Your task to perform on an android device: open app "Fetch Rewards" (install if not already installed) and enter user name: "Westwood@yahoo.com" and password: "qualifying" Image 0: 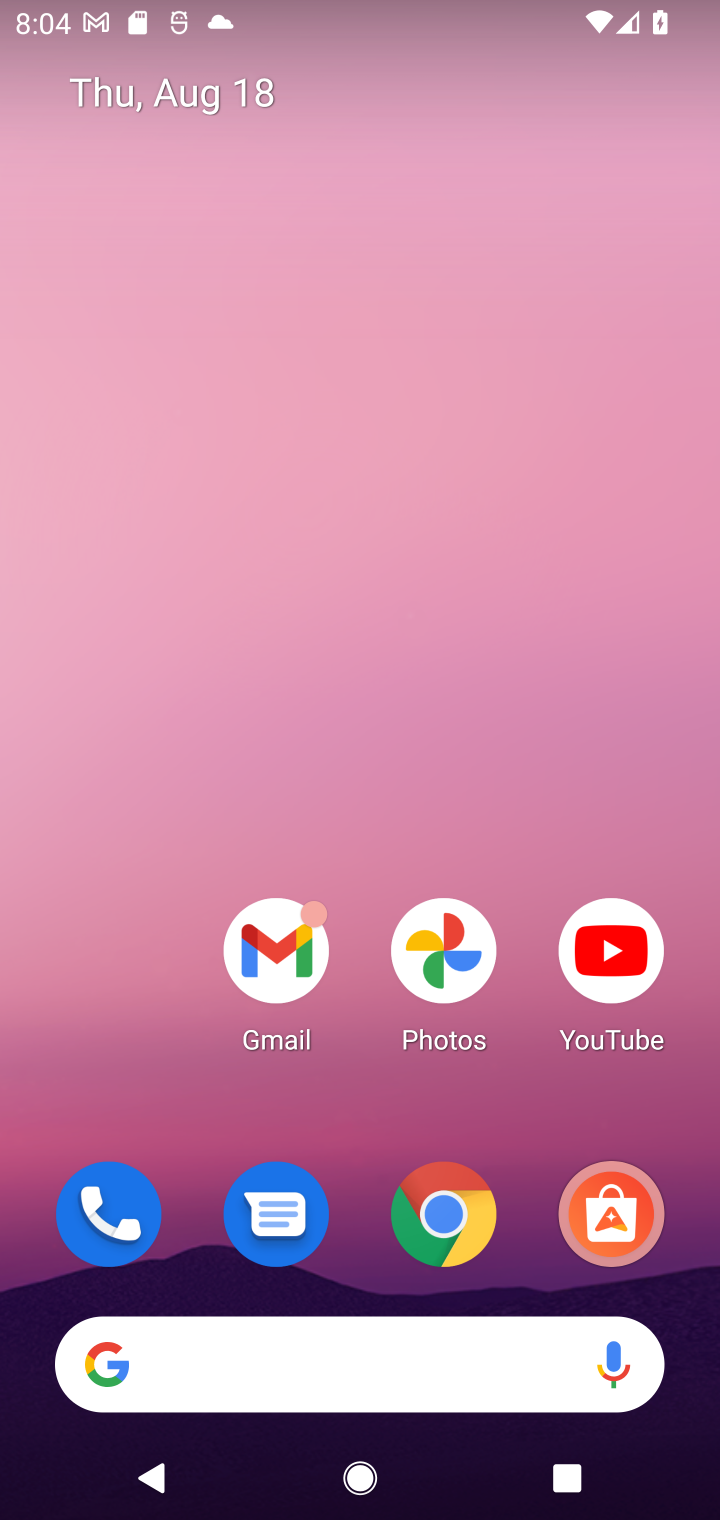
Step 0: drag from (127, 1076) to (248, 128)
Your task to perform on an android device: open app "Fetch Rewards" (install if not already installed) and enter user name: "Westwood@yahoo.com" and password: "qualifying" Image 1: 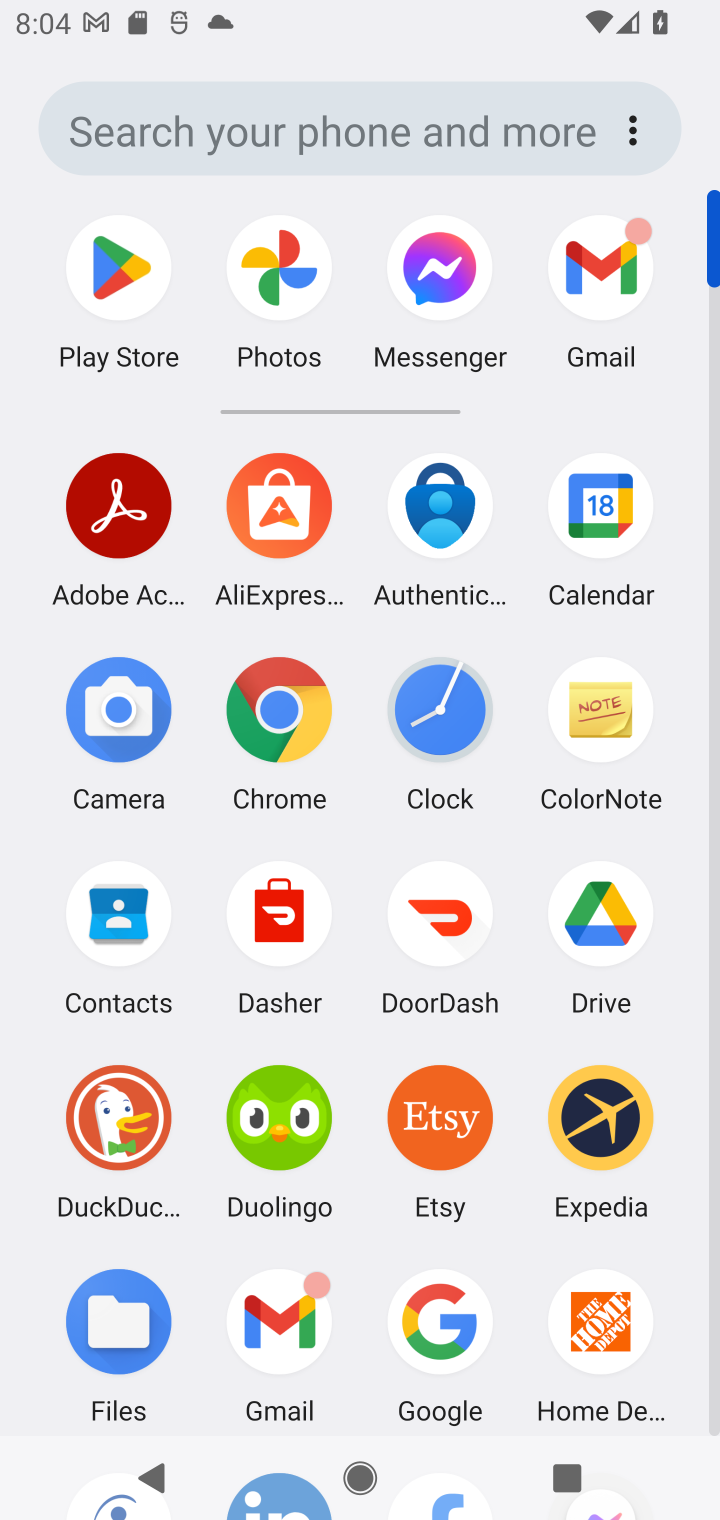
Step 1: click (110, 268)
Your task to perform on an android device: open app "Fetch Rewards" (install if not already installed) and enter user name: "Westwood@yahoo.com" and password: "qualifying" Image 2: 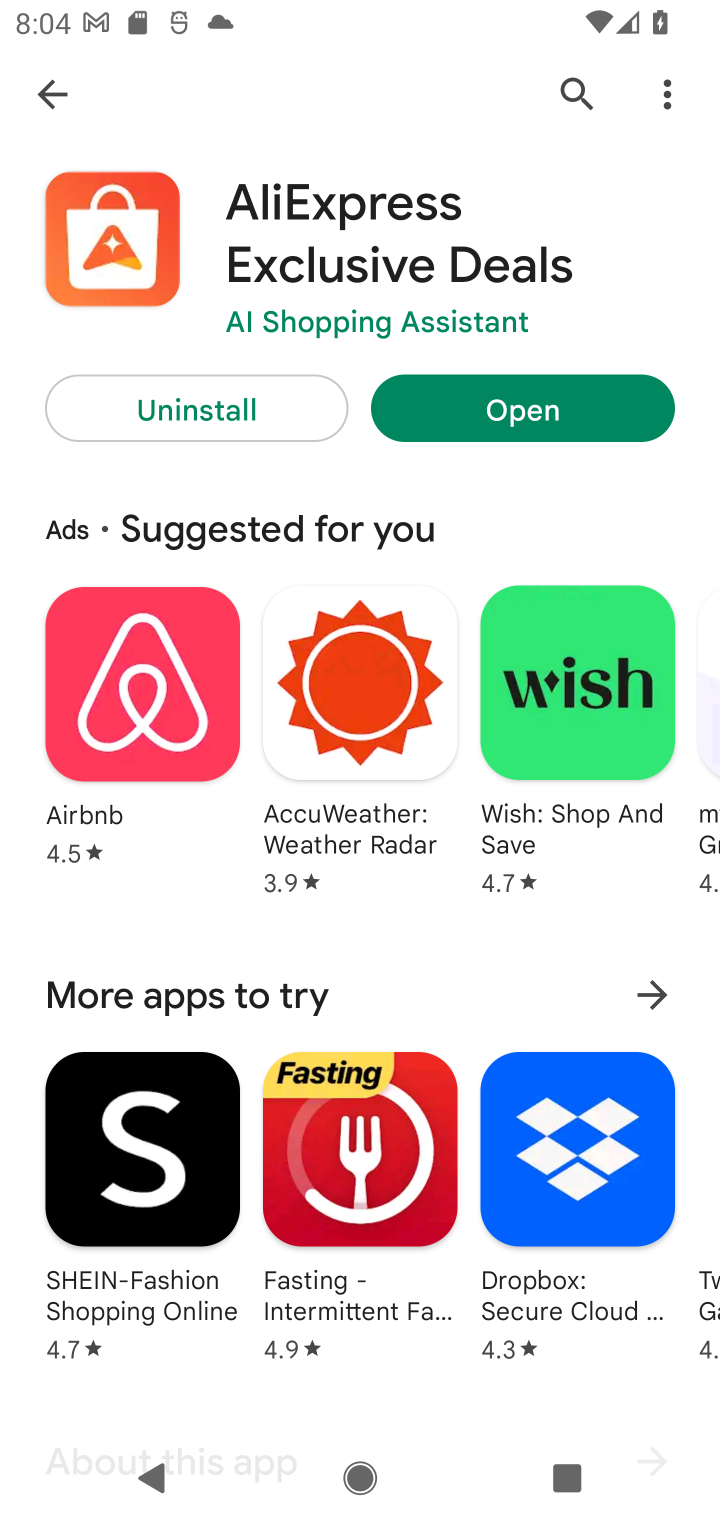
Step 2: click (566, 85)
Your task to perform on an android device: open app "Fetch Rewards" (install if not already installed) and enter user name: "Westwood@yahoo.com" and password: "qualifying" Image 3: 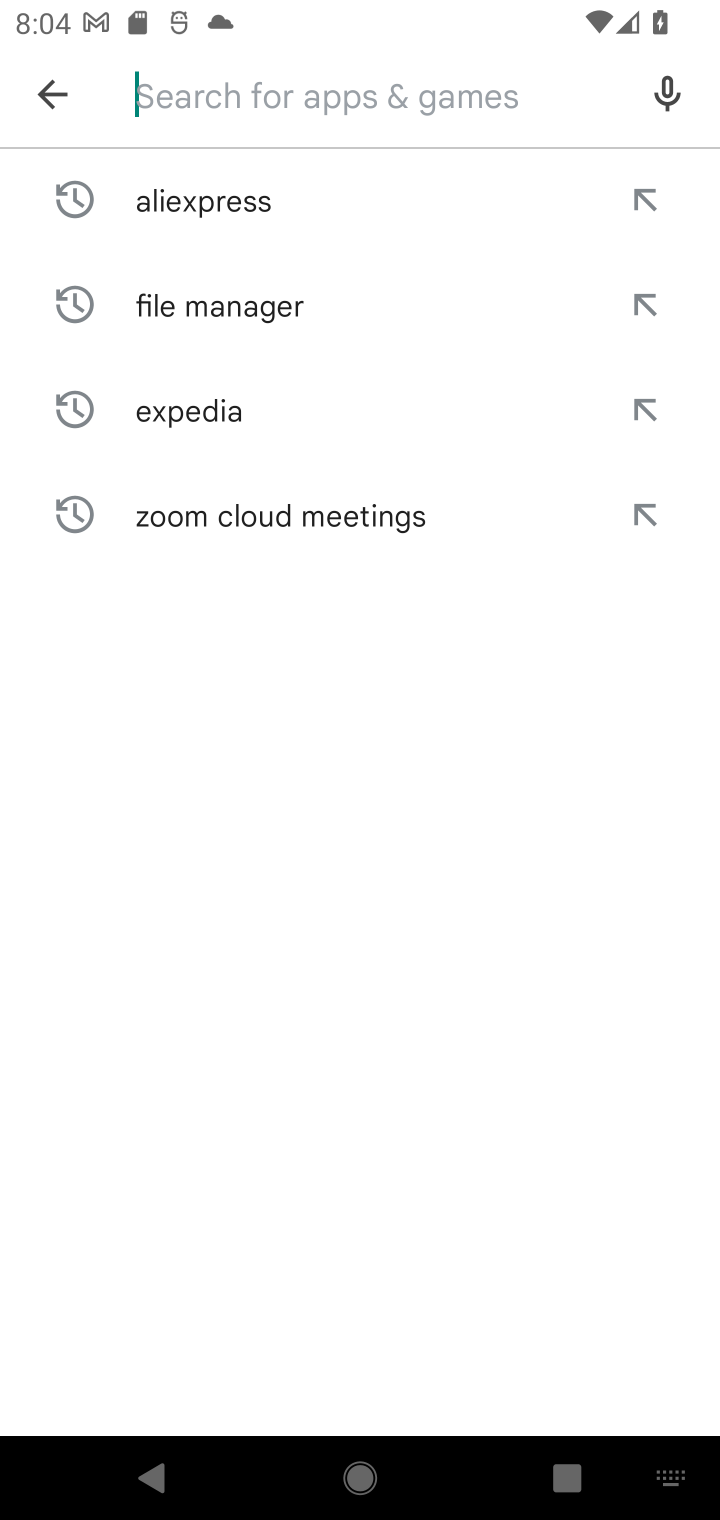
Step 3: click (396, 111)
Your task to perform on an android device: open app "Fetch Rewards" (install if not already installed) and enter user name: "Westwood@yahoo.com" and password: "qualifying" Image 4: 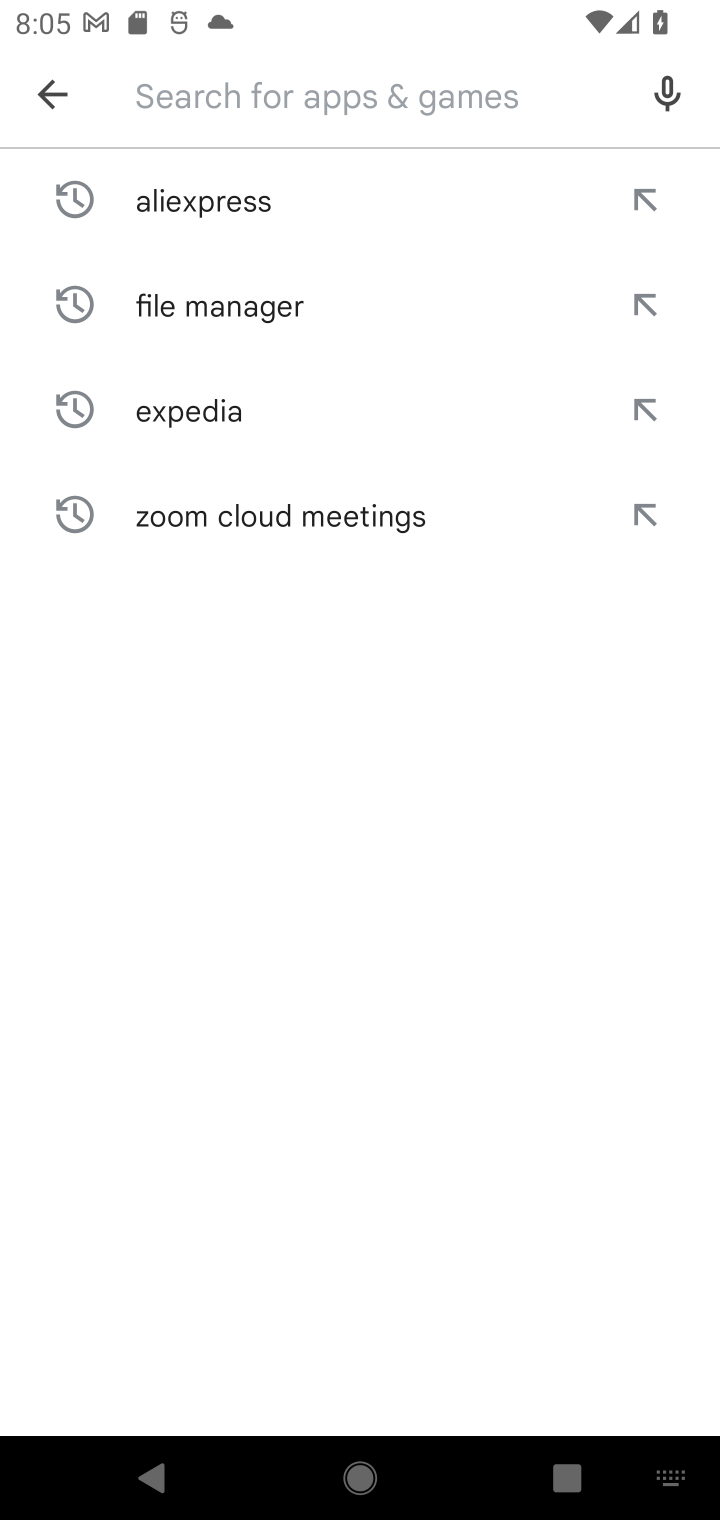
Step 4: type "fetch rewards"
Your task to perform on an android device: open app "Fetch Rewards" (install if not already installed) and enter user name: "Westwood@yahoo.com" and password: "qualifying" Image 5: 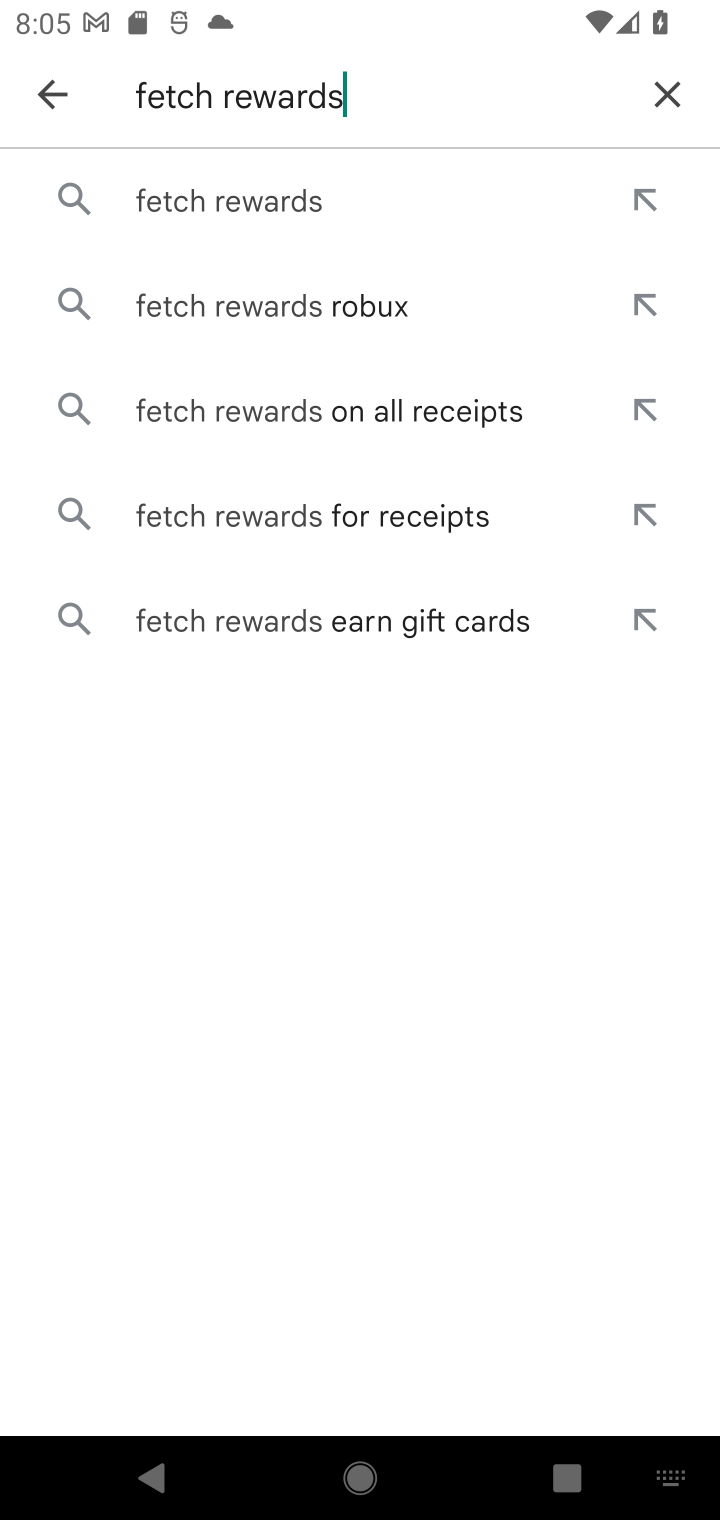
Step 5: click (283, 196)
Your task to perform on an android device: open app "Fetch Rewards" (install if not already installed) and enter user name: "Westwood@yahoo.com" and password: "qualifying" Image 6: 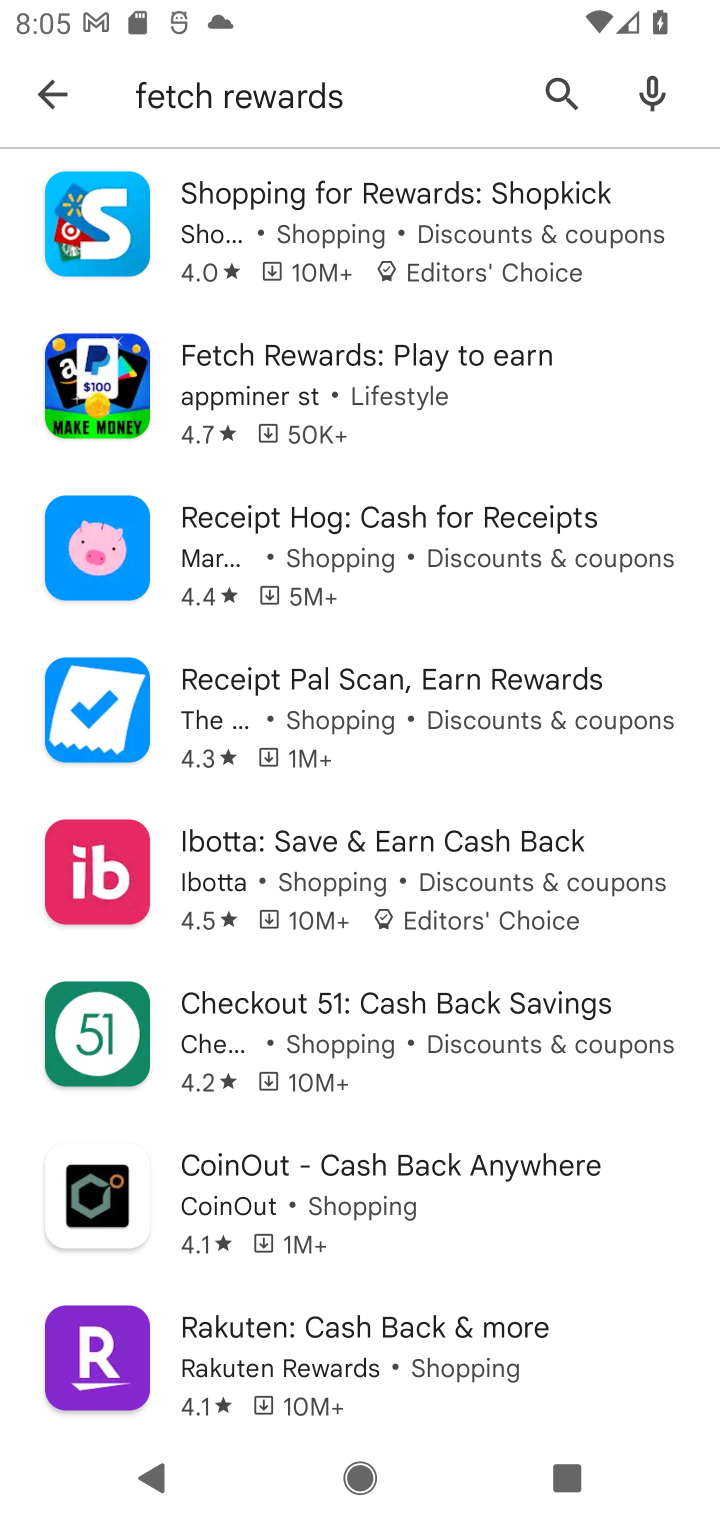
Step 6: click (308, 370)
Your task to perform on an android device: open app "Fetch Rewards" (install if not already installed) and enter user name: "Westwood@yahoo.com" and password: "qualifying" Image 7: 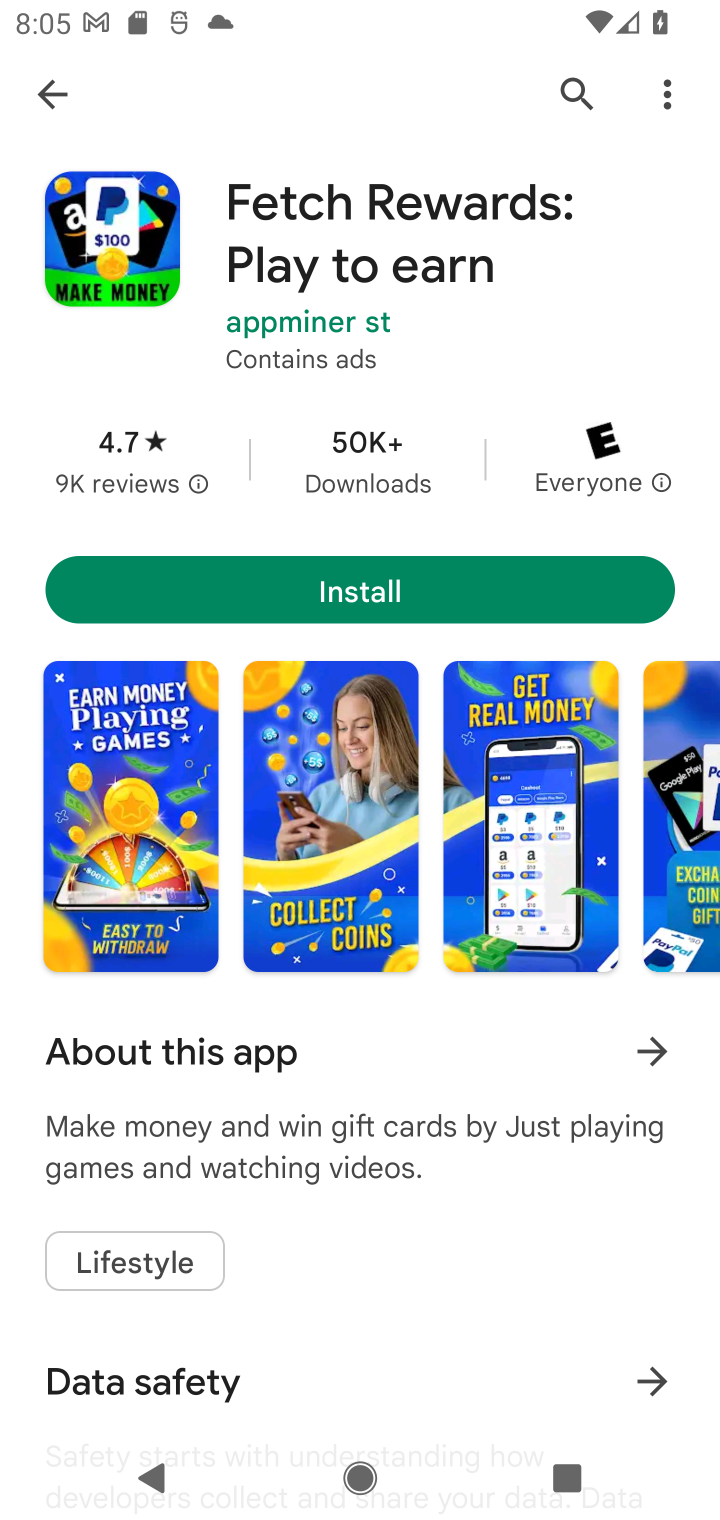
Step 7: click (378, 576)
Your task to perform on an android device: open app "Fetch Rewards" (install if not already installed) and enter user name: "Westwood@yahoo.com" and password: "qualifying" Image 8: 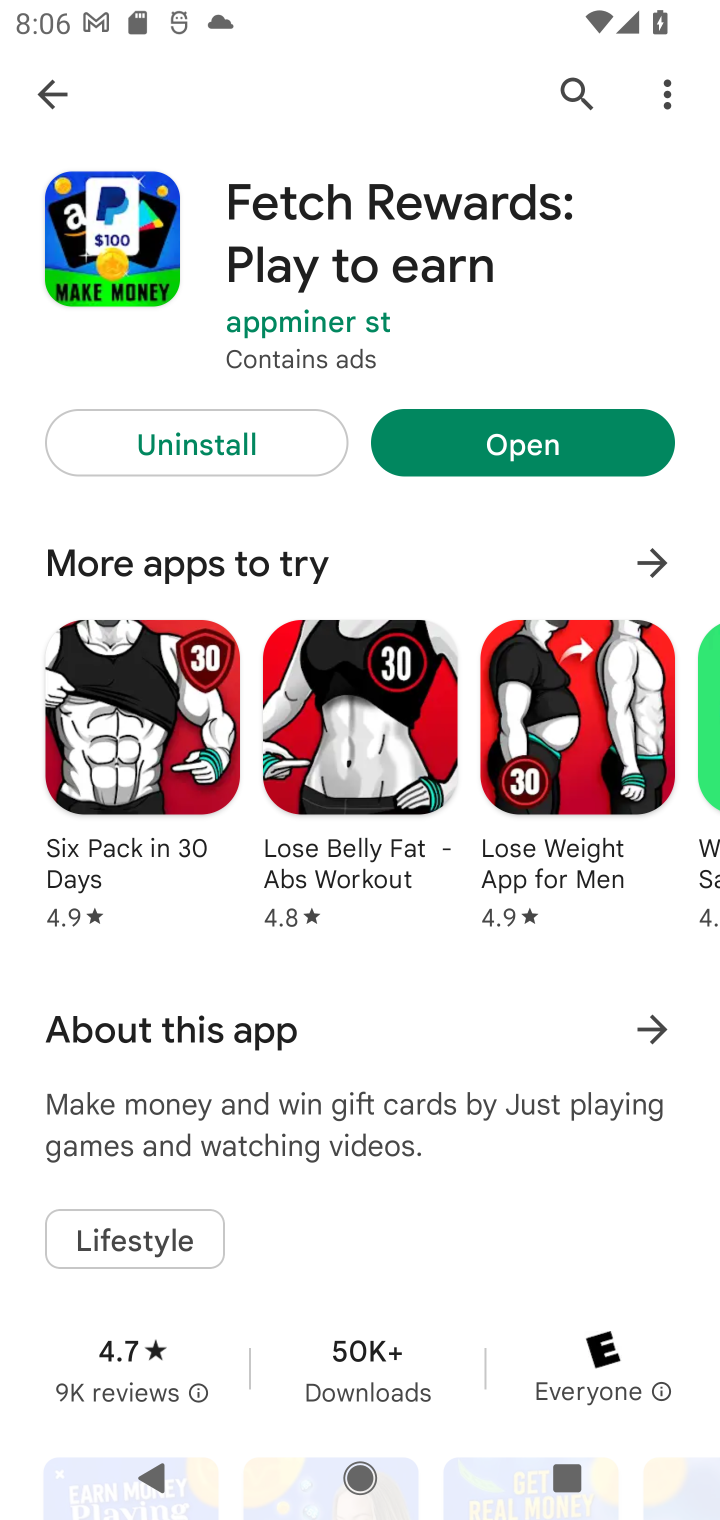
Step 8: click (527, 433)
Your task to perform on an android device: open app "Fetch Rewards" (install if not already installed) and enter user name: "Westwood@yahoo.com" and password: "qualifying" Image 9: 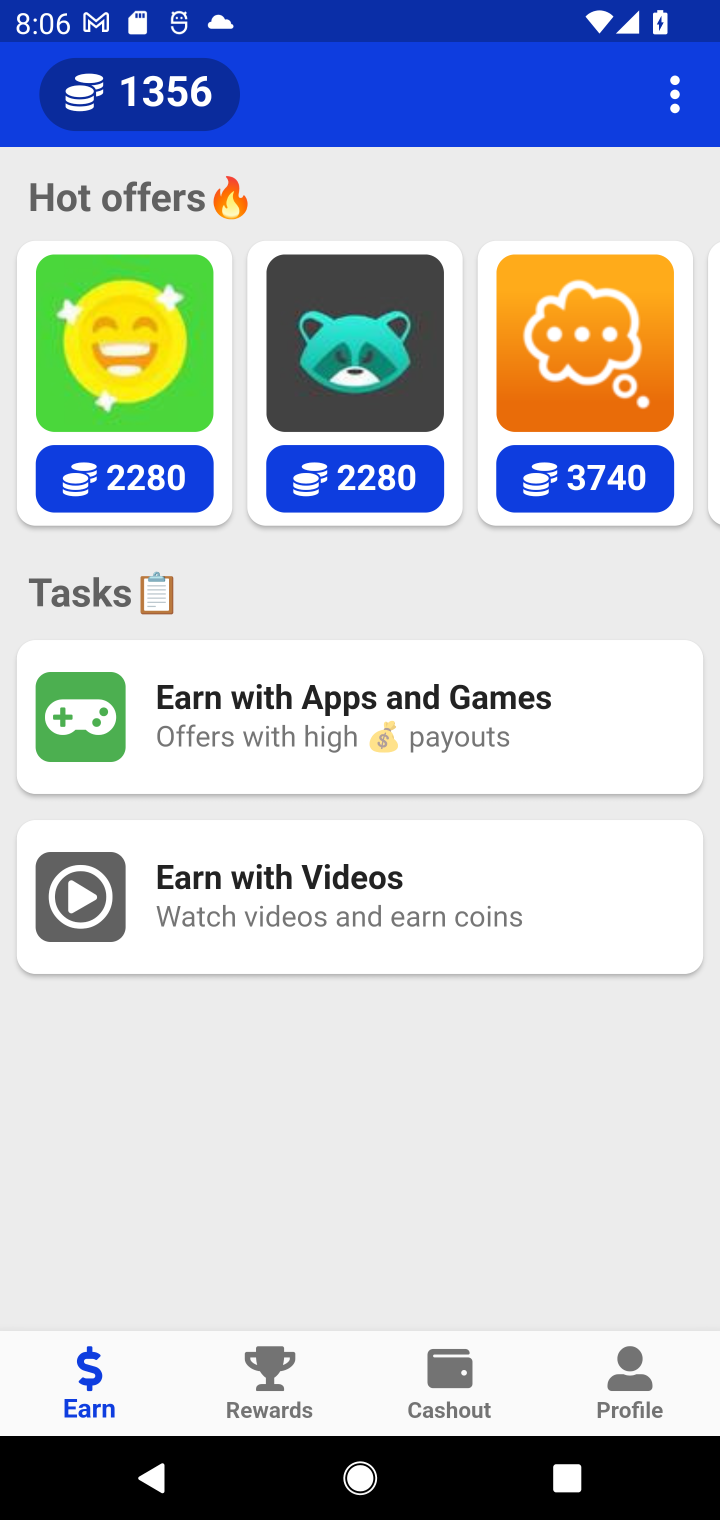
Step 9: click (624, 1395)
Your task to perform on an android device: open app "Fetch Rewards" (install if not already installed) and enter user name: "Westwood@yahoo.com" and password: "qualifying" Image 10: 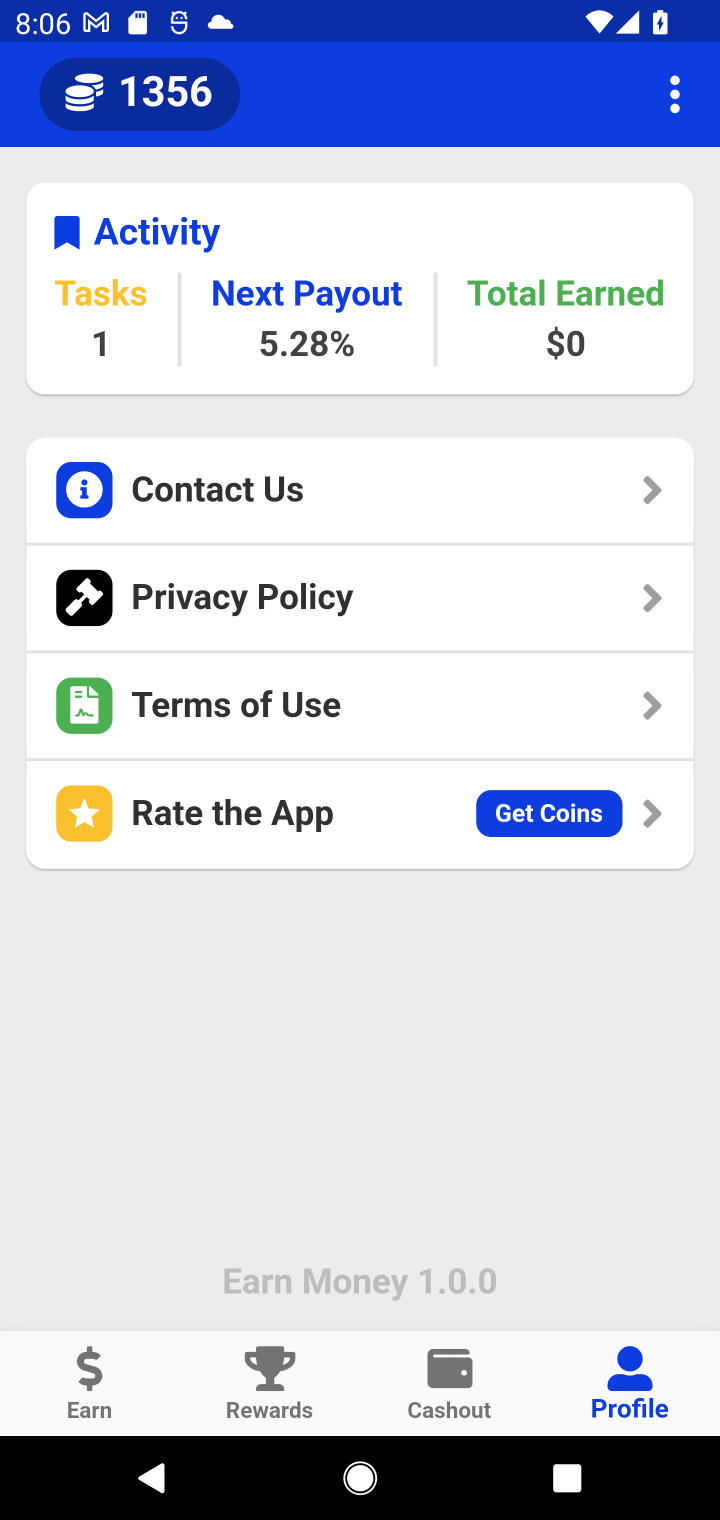
Step 10: click (677, 71)
Your task to perform on an android device: open app "Fetch Rewards" (install if not already installed) and enter user name: "Westwood@yahoo.com" and password: "qualifying" Image 11: 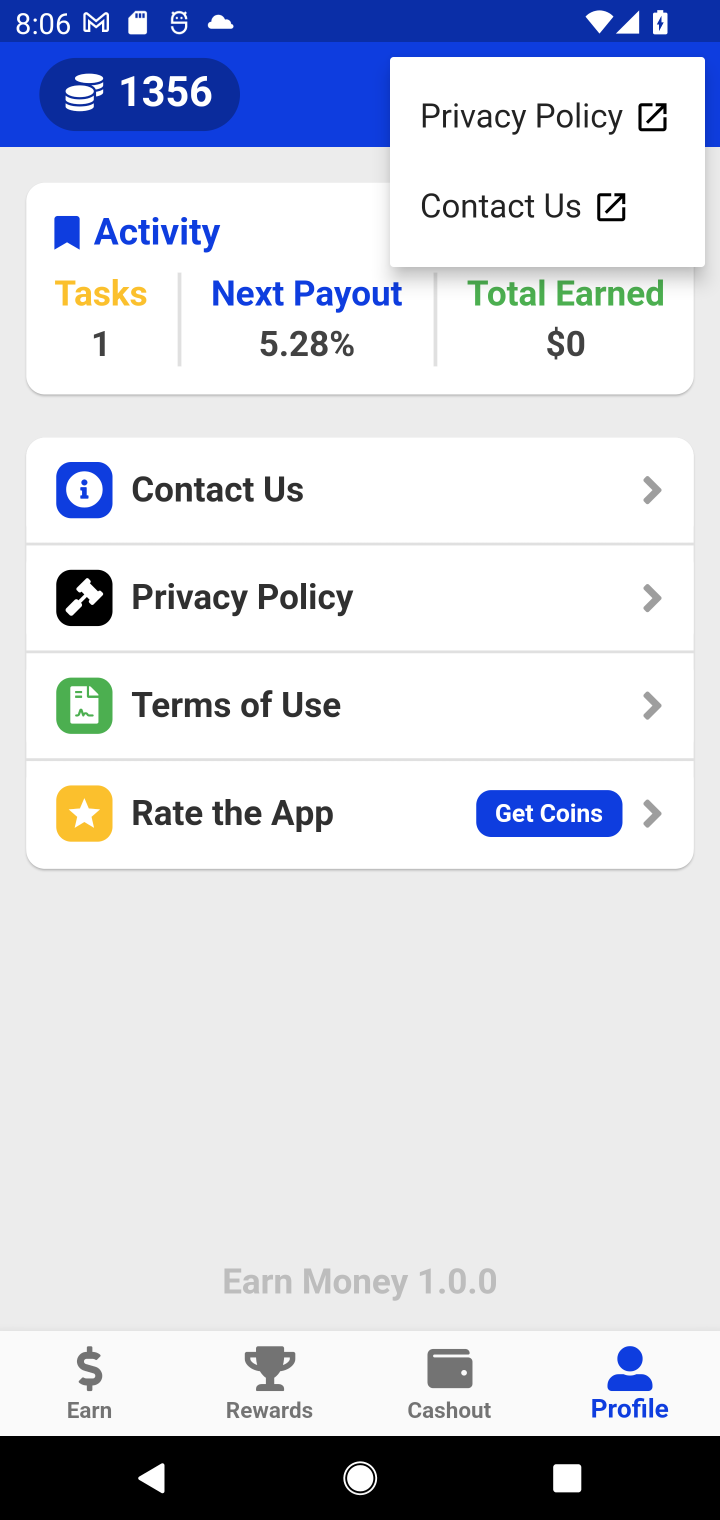
Step 11: click (317, 1084)
Your task to perform on an android device: open app "Fetch Rewards" (install if not already installed) and enter user name: "Westwood@yahoo.com" and password: "qualifying" Image 12: 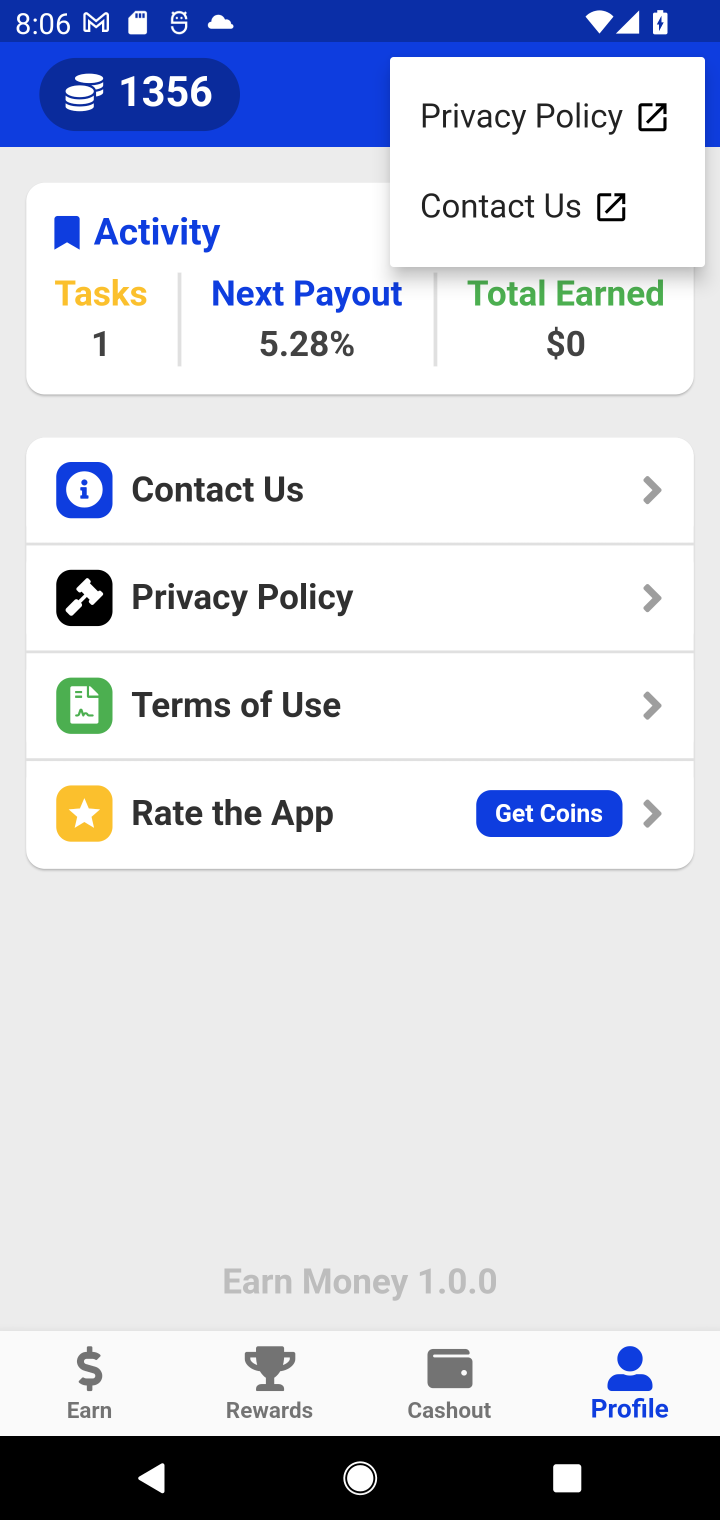
Step 12: click (88, 1388)
Your task to perform on an android device: open app "Fetch Rewards" (install if not already installed) and enter user name: "Westwood@yahoo.com" and password: "qualifying" Image 13: 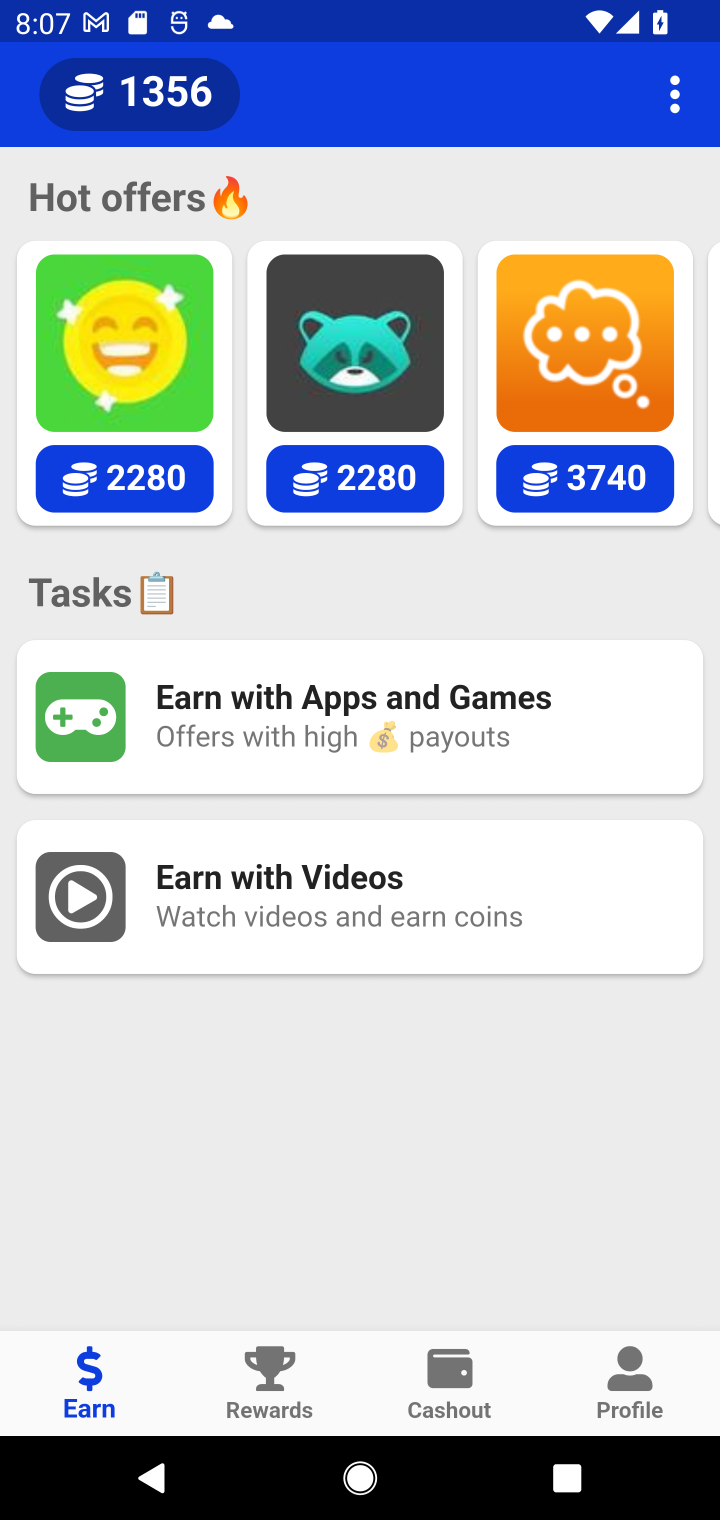
Step 13: task complete